Your task to perform on an android device: install app "Google News" Image 0: 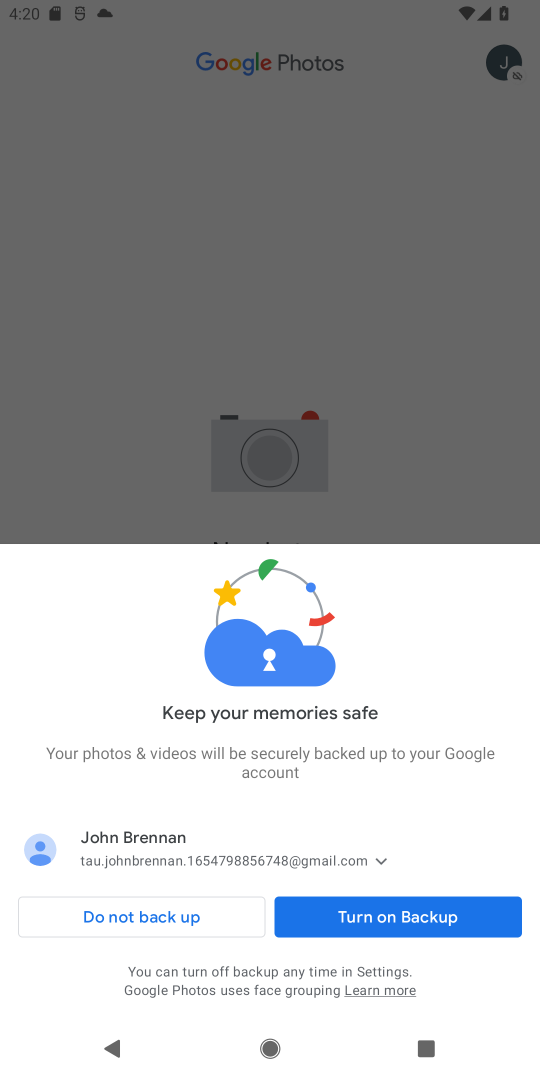
Step 0: press home button
Your task to perform on an android device: install app "Google News" Image 1: 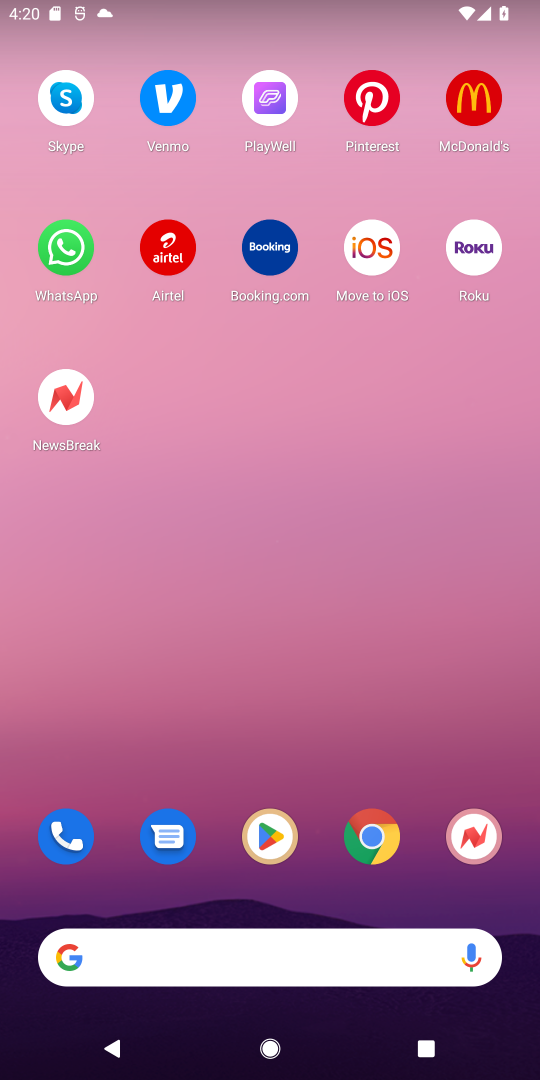
Step 1: click (271, 842)
Your task to perform on an android device: install app "Google News" Image 2: 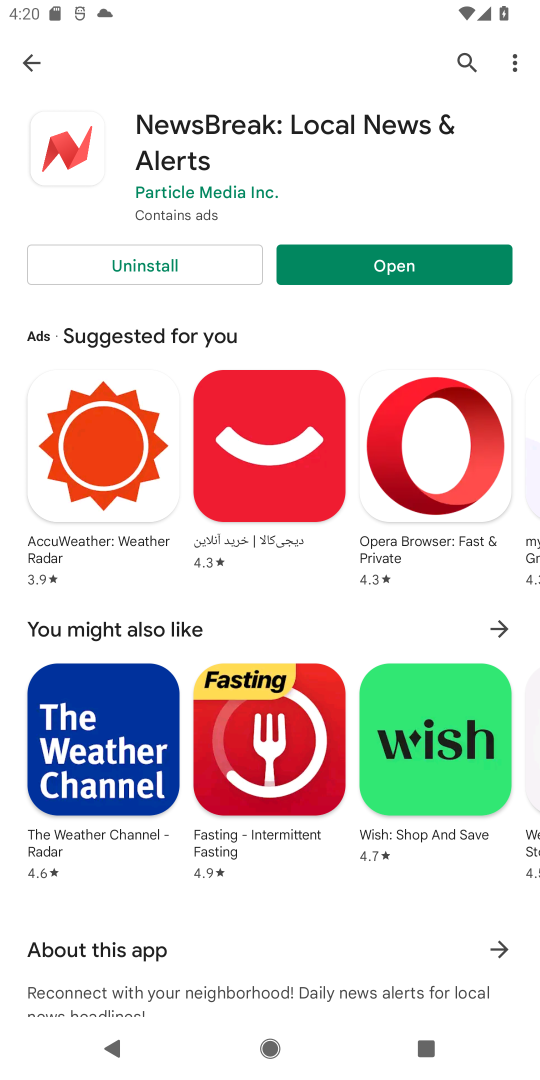
Step 2: click (458, 64)
Your task to perform on an android device: install app "Google News" Image 3: 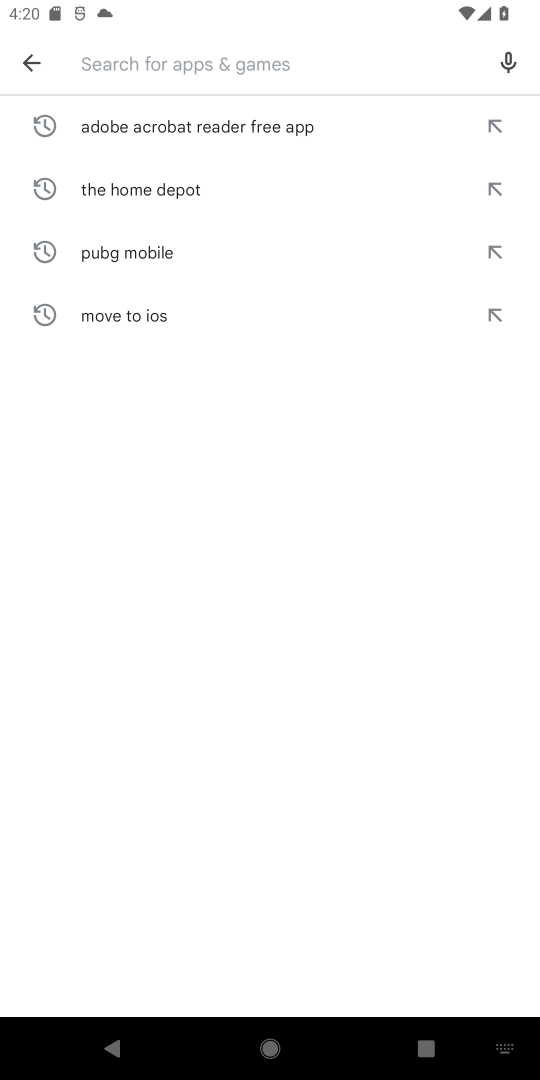
Step 3: type "Google News"
Your task to perform on an android device: install app "Google News" Image 4: 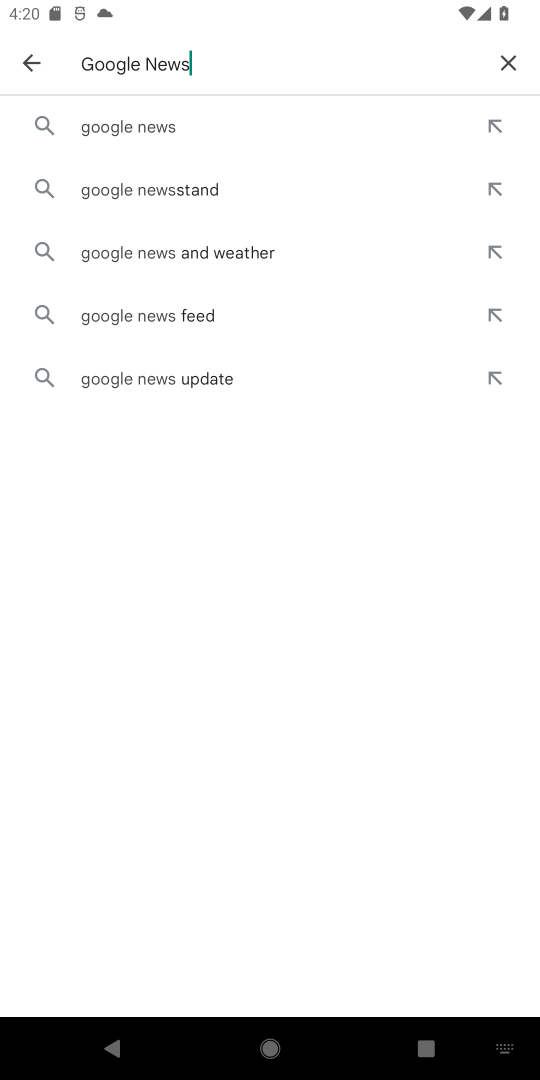
Step 4: click (114, 115)
Your task to perform on an android device: install app "Google News" Image 5: 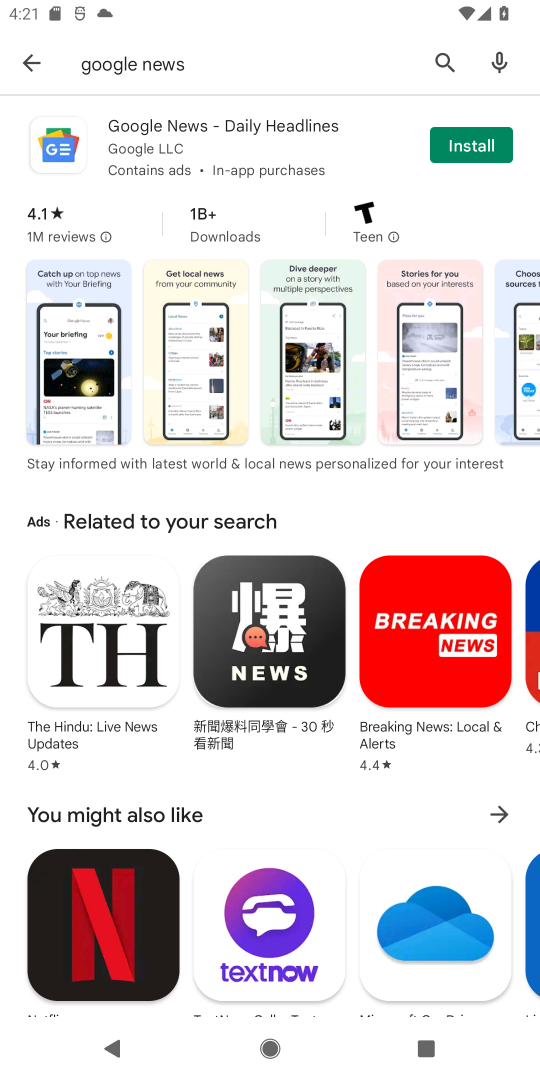
Step 5: click (462, 142)
Your task to perform on an android device: install app "Google News" Image 6: 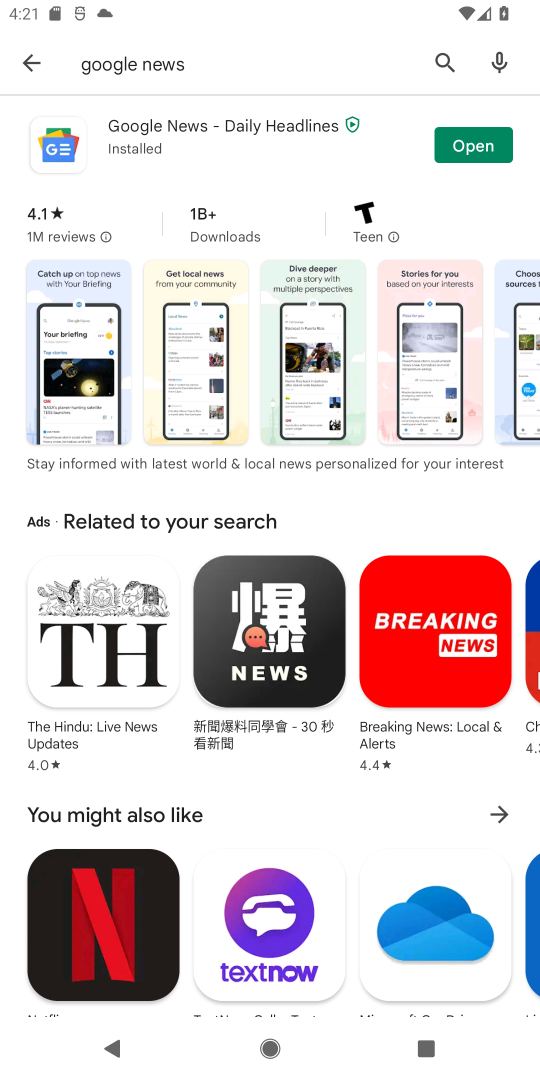
Step 6: task complete